Your task to perform on an android device: change the clock display to show seconds Image 0: 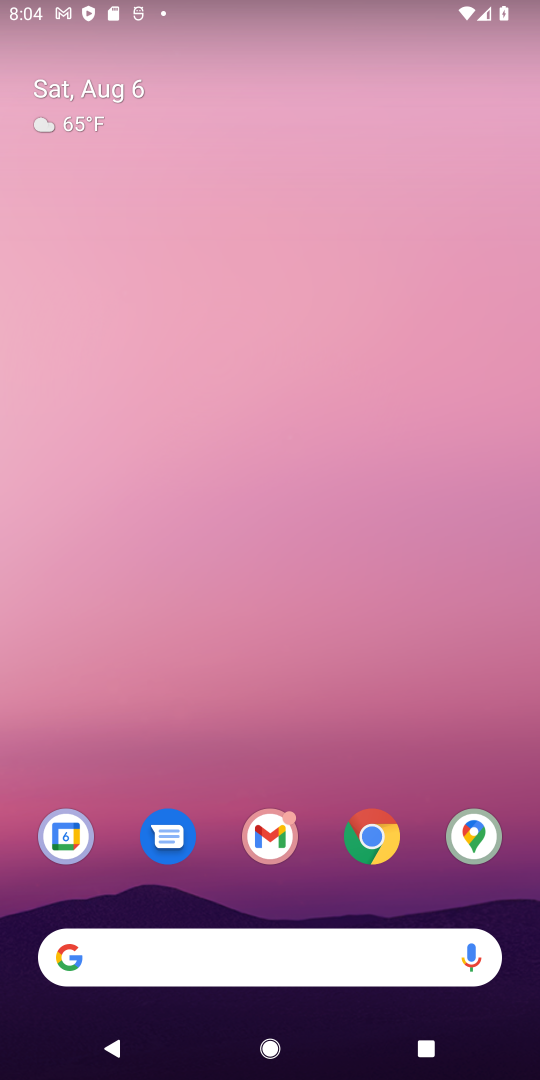
Step 0: drag from (433, 871) to (207, 108)
Your task to perform on an android device: change the clock display to show seconds Image 1: 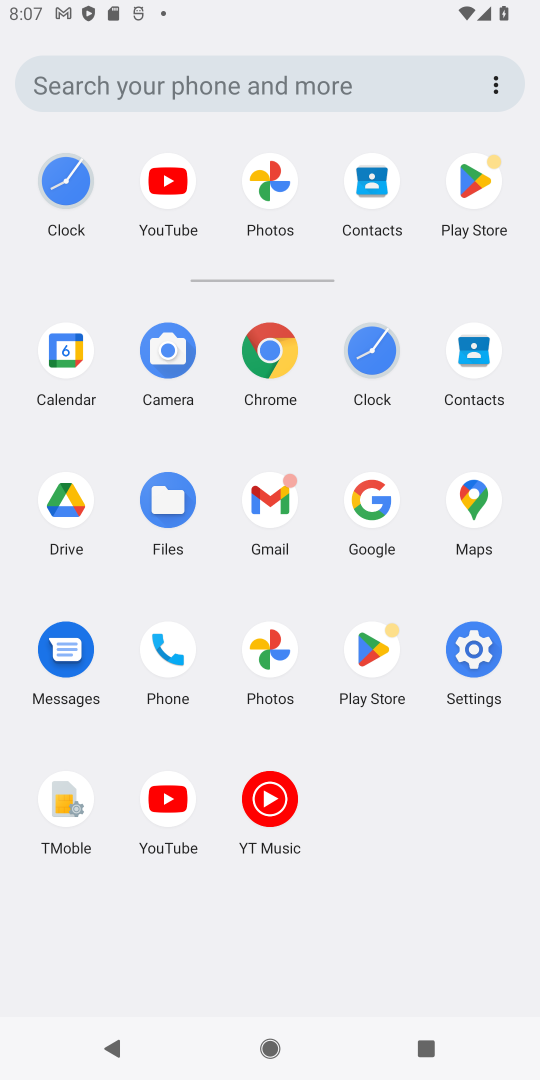
Step 1: click (372, 363)
Your task to perform on an android device: change the clock display to show seconds Image 2: 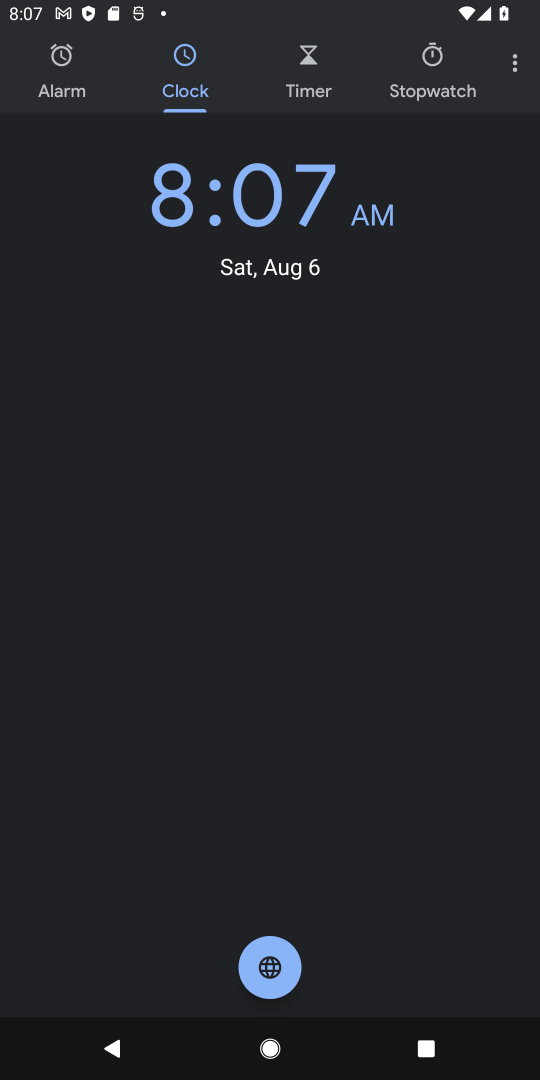
Step 2: click (520, 57)
Your task to perform on an android device: change the clock display to show seconds Image 3: 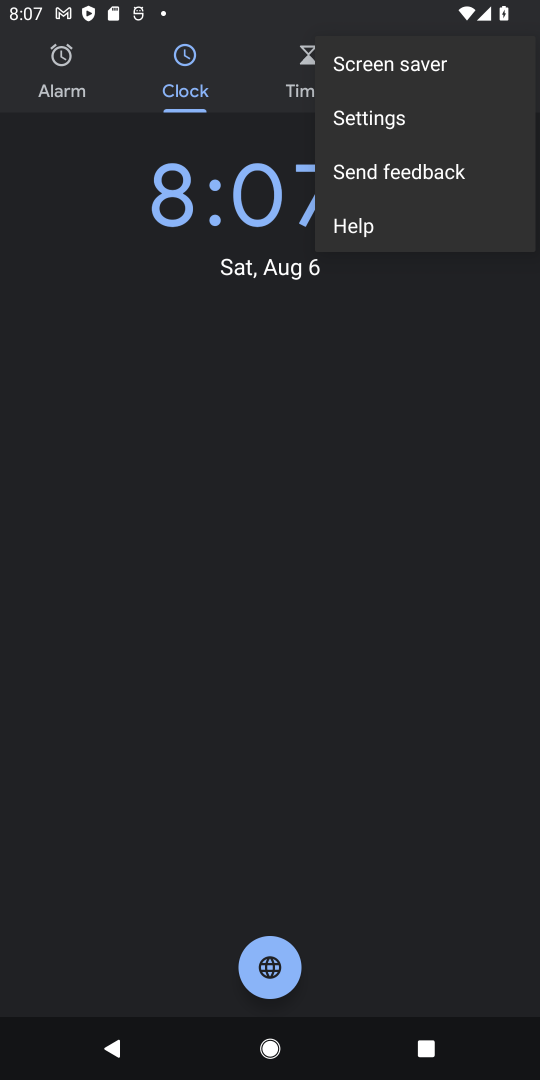
Step 3: click (397, 128)
Your task to perform on an android device: change the clock display to show seconds Image 4: 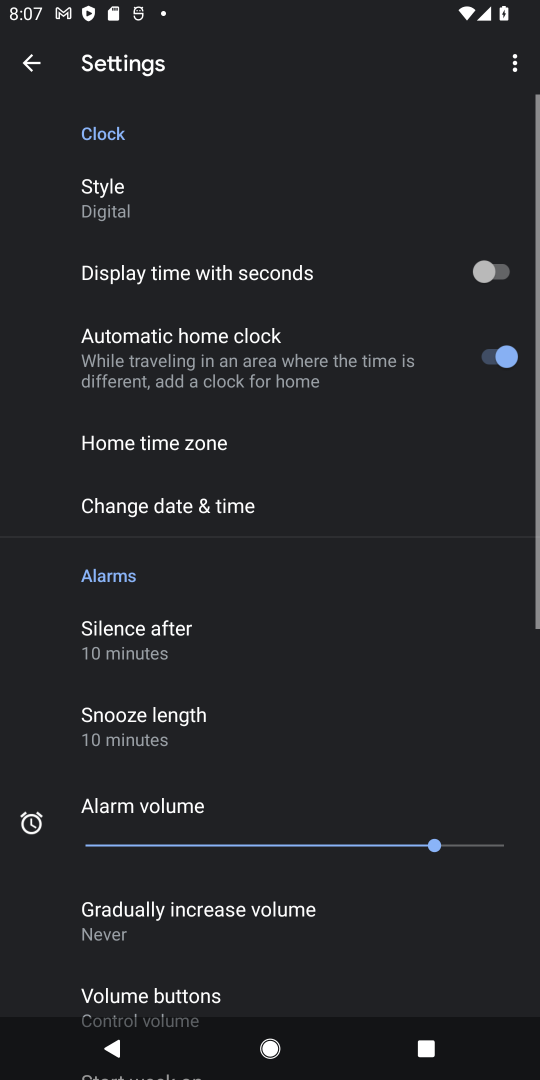
Step 4: click (512, 281)
Your task to perform on an android device: change the clock display to show seconds Image 5: 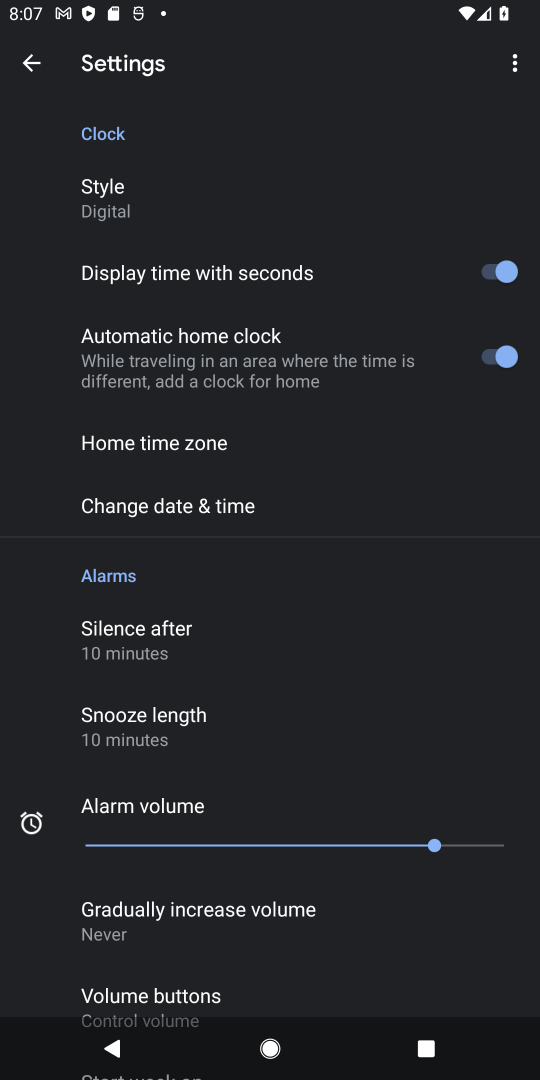
Step 5: task complete